Your task to perform on an android device: Open the Play Movies app and select the watchlist tab. Image 0: 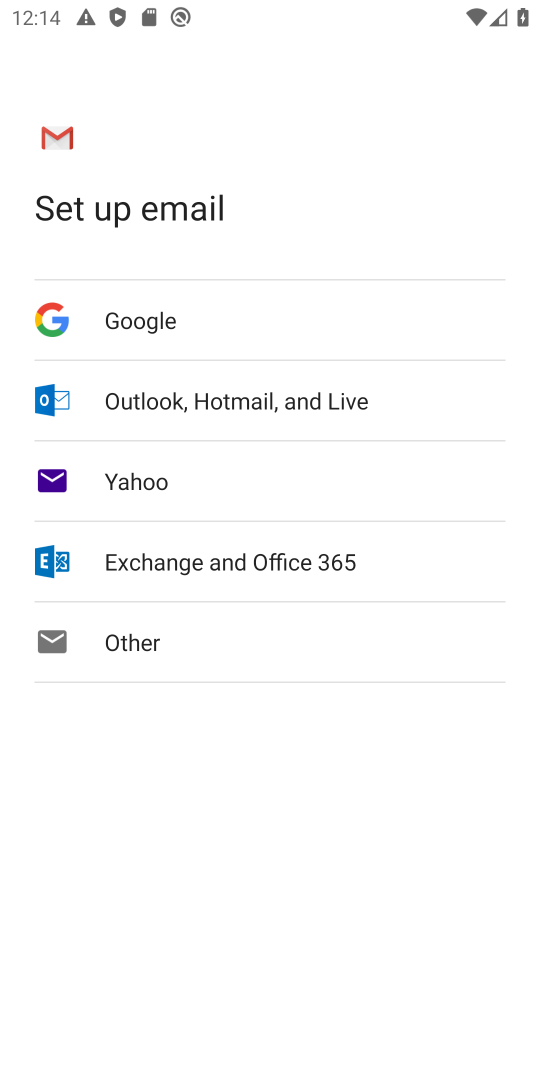
Step 0: press home button
Your task to perform on an android device: Open the Play Movies app and select the watchlist tab. Image 1: 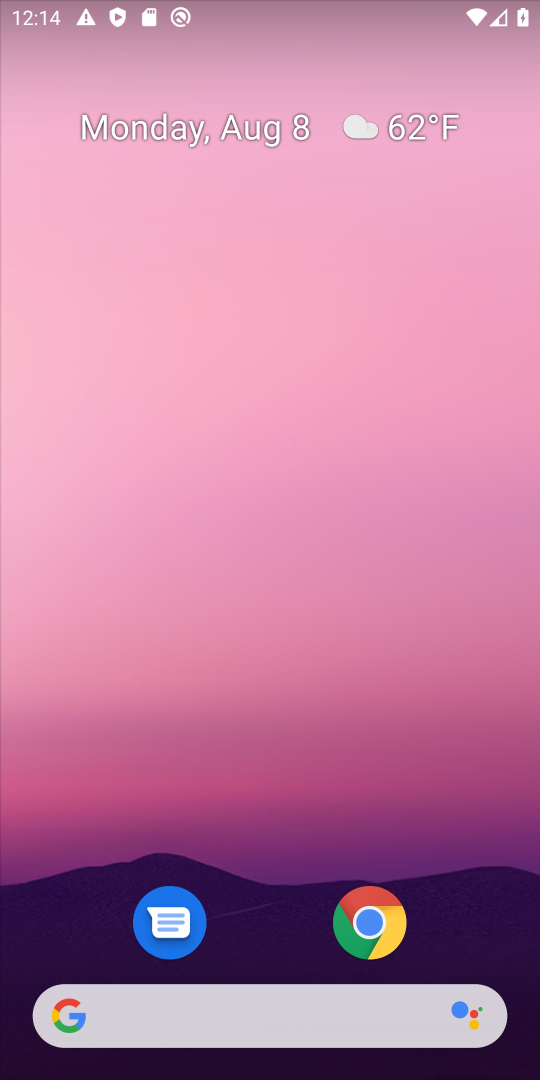
Step 1: drag from (458, 824) to (433, 66)
Your task to perform on an android device: Open the Play Movies app and select the watchlist tab. Image 2: 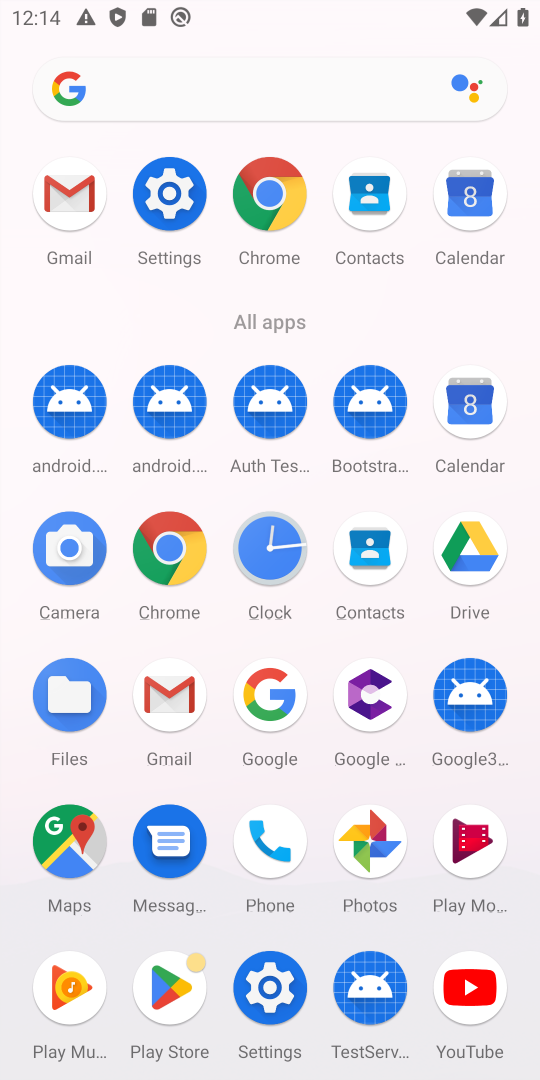
Step 2: click (463, 827)
Your task to perform on an android device: Open the Play Movies app and select the watchlist tab. Image 3: 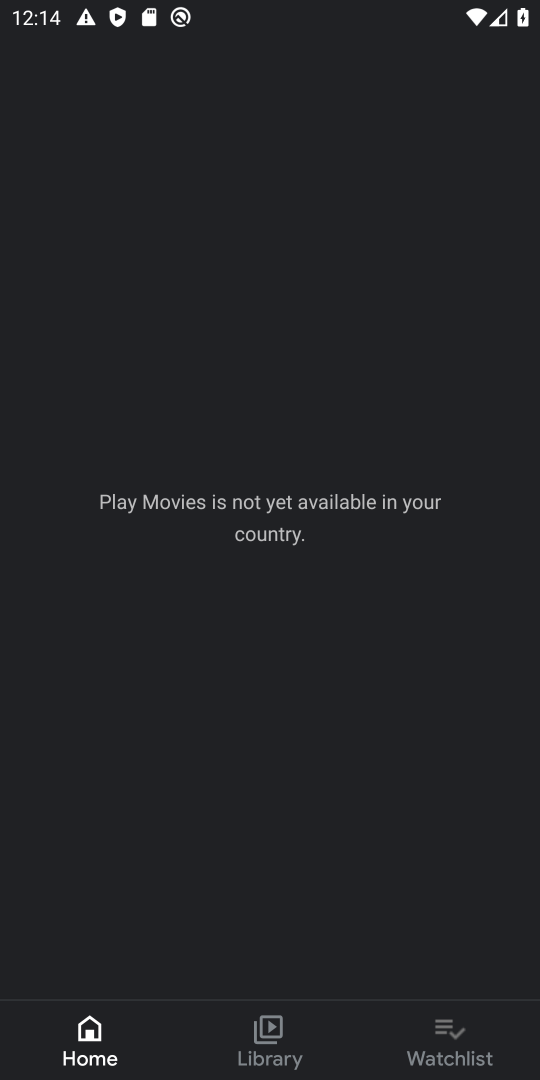
Step 3: click (447, 1029)
Your task to perform on an android device: Open the Play Movies app and select the watchlist tab. Image 4: 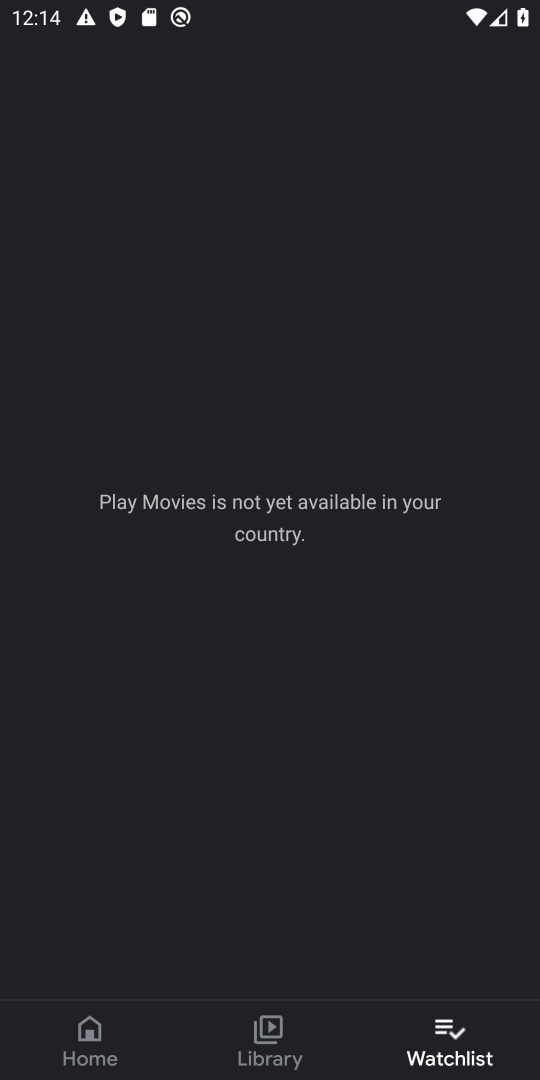
Step 4: task complete